Your task to perform on an android device: turn on location history Image 0: 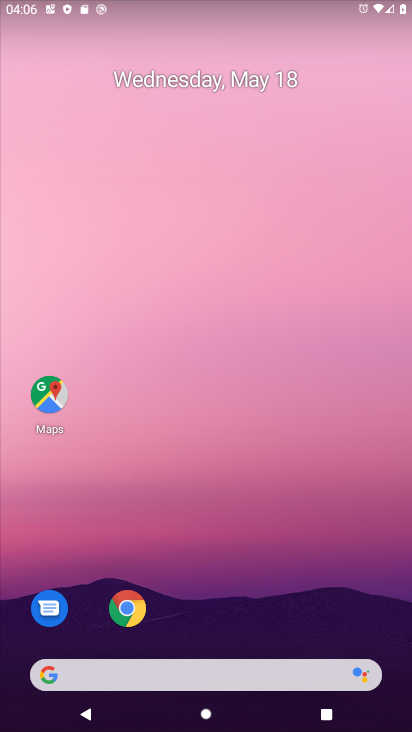
Step 0: drag from (202, 613) to (249, 31)
Your task to perform on an android device: turn on location history Image 1: 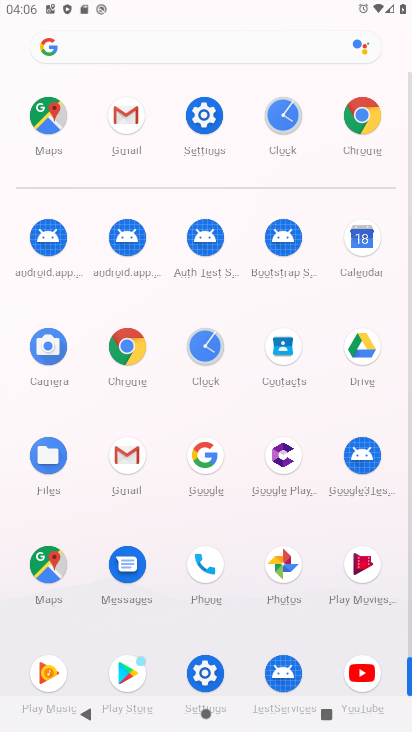
Step 1: click (212, 106)
Your task to perform on an android device: turn on location history Image 2: 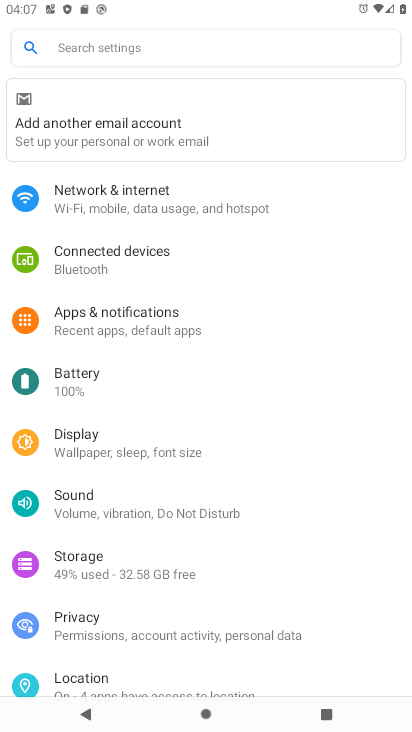
Step 2: click (97, 679)
Your task to perform on an android device: turn on location history Image 3: 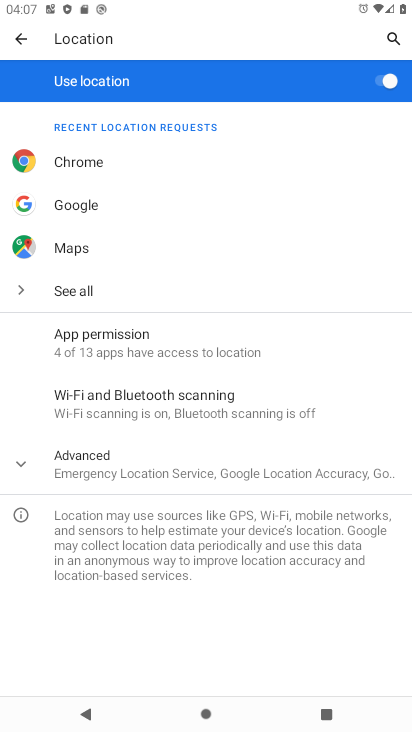
Step 3: click (236, 459)
Your task to perform on an android device: turn on location history Image 4: 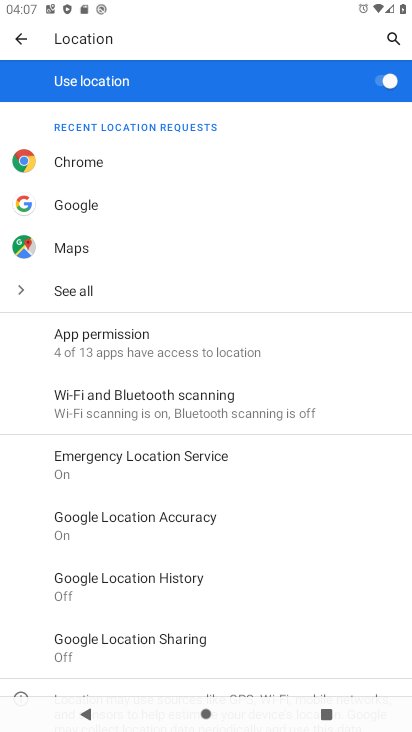
Step 4: click (113, 603)
Your task to perform on an android device: turn on location history Image 5: 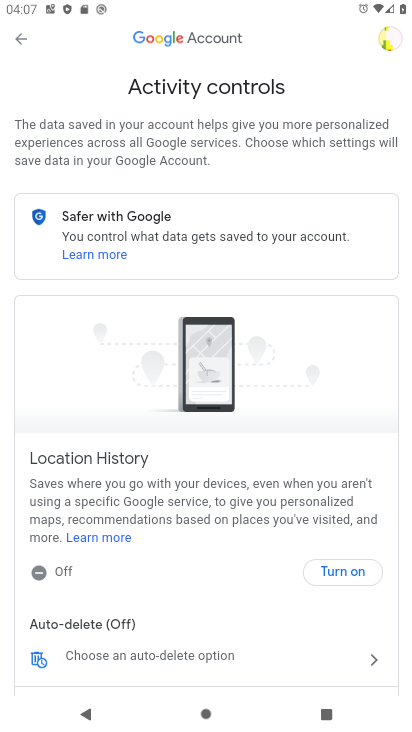
Step 5: click (348, 563)
Your task to perform on an android device: turn on location history Image 6: 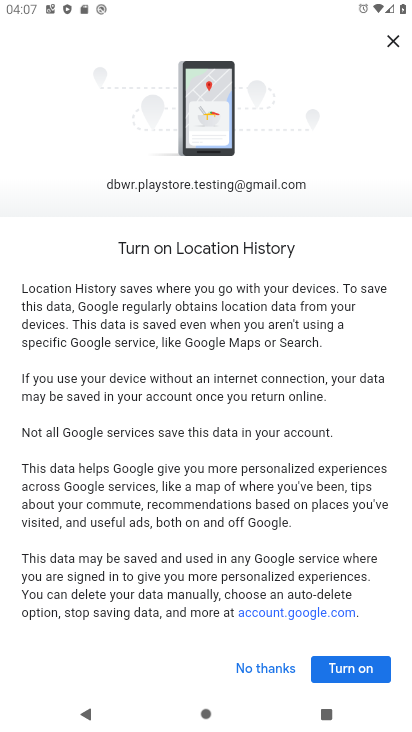
Step 6: click (351, 676)
Your task to perform on an android device: turn on location history Image 7: 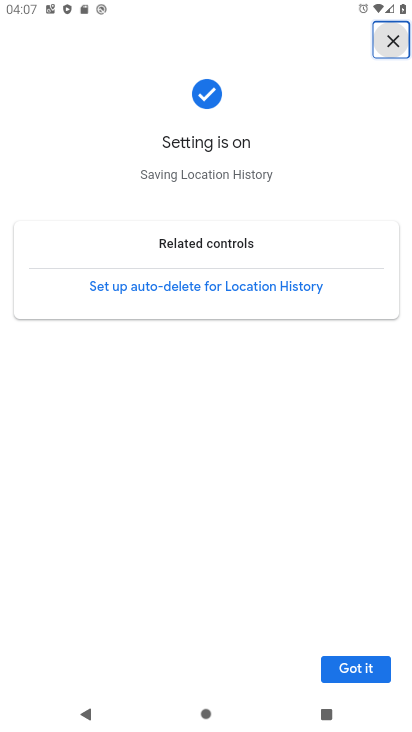
Step 7: click (351, 676)
Your task to perform on an android device: turn on location history Image 8: 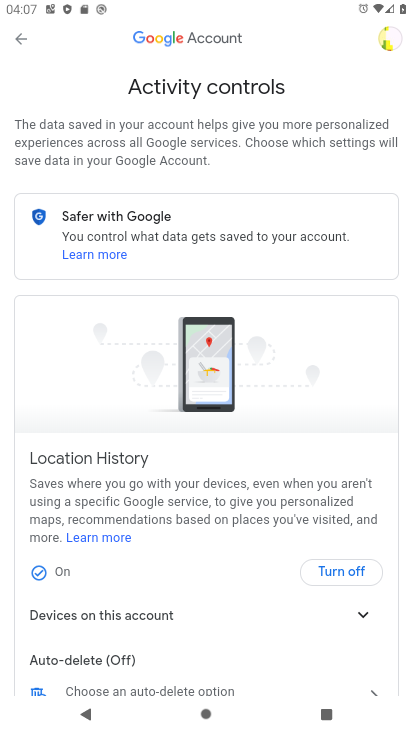
Step 8: task complete